Your task to perform on an android device: open a bookmark in the chrome app Image 0: 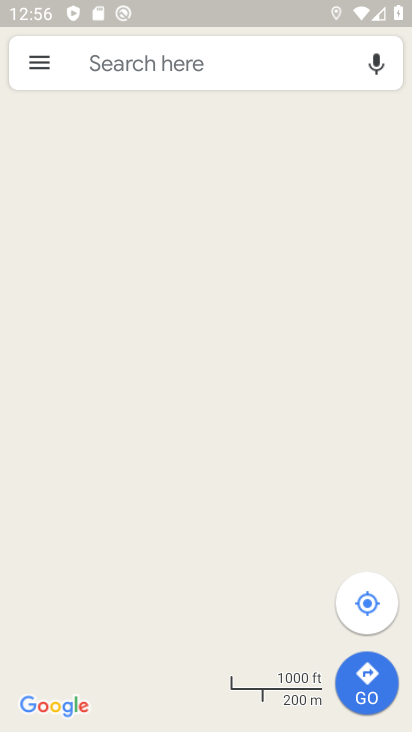
Step 0: press home button
Your task to perform on an android device: open a bookmark in the chrome app Image 1: 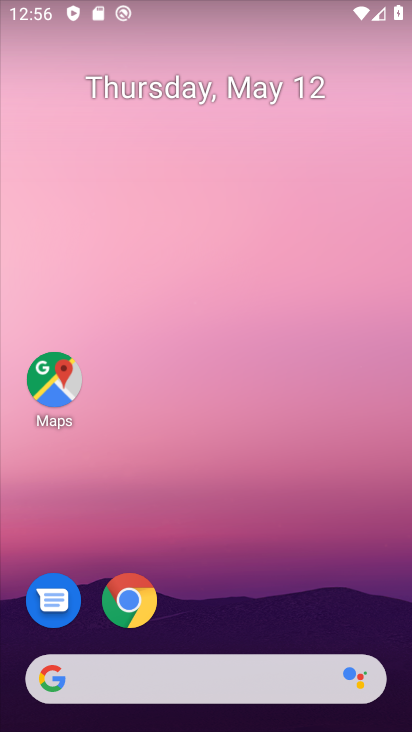
Step 1: click (134, 610)
Your task to perform on an android device: open a bookmark in the chrome app Image 2: 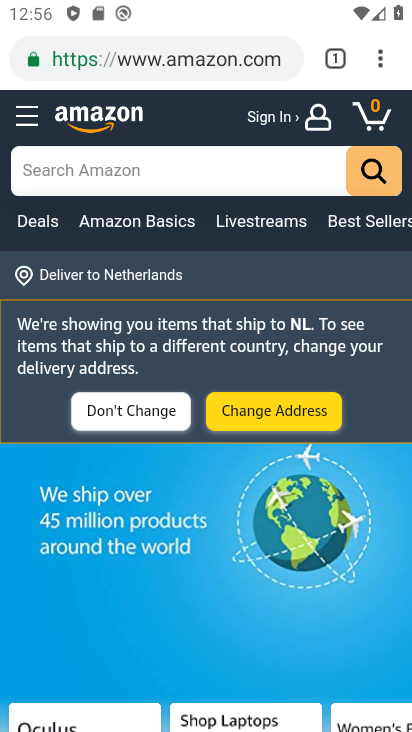
Step 2: task complete